Your task to perform on an android device: turn off location history Image 0: 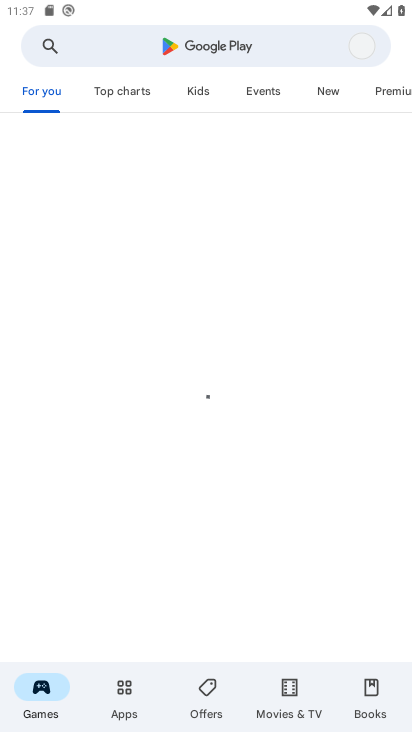
Step 0: press home button
Your task to perform on an android device: turn off location history Image 1: 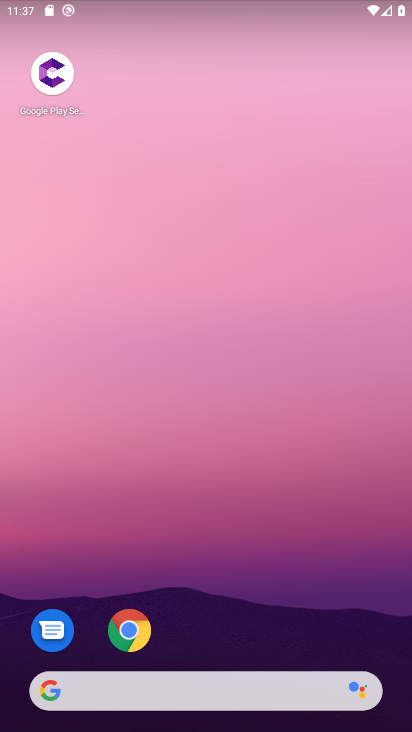
Step 1: drag from (202, 641) to (201, 66)
Your task to perform on an android device: turn off location history Image 2: 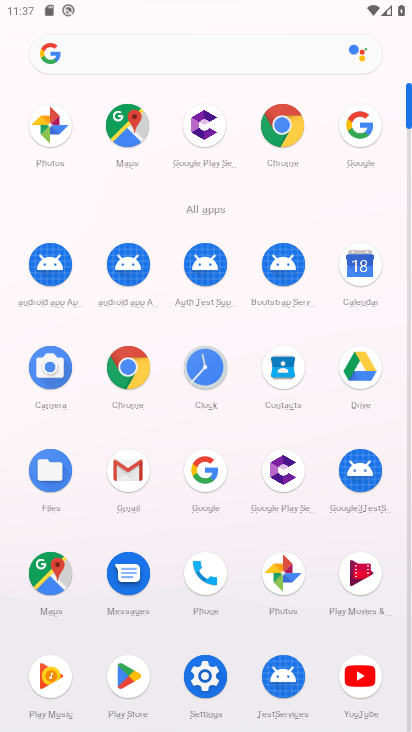
Step 2: click (202, 671)
Your task to perform on an android device: turn off location history Image 3: 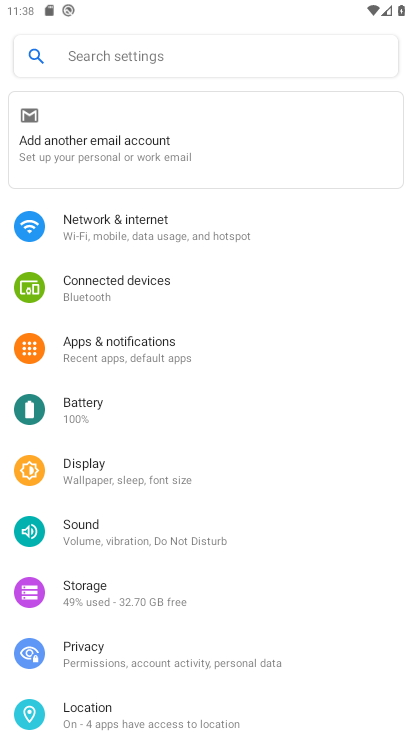
Step 3: click (99, 705)
Your task to perform on an android device: turn off location history Image 4: 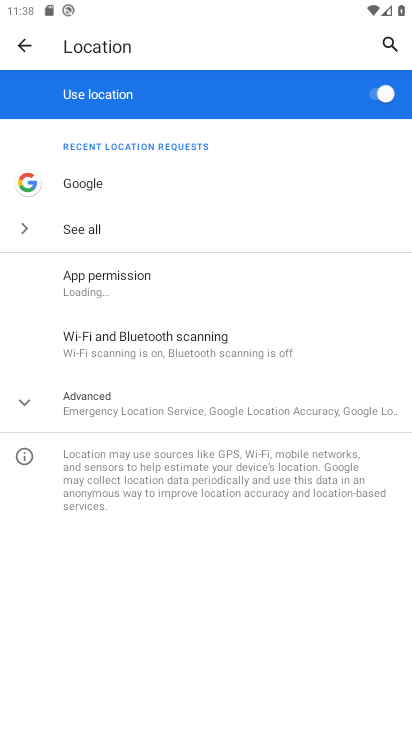
Step 4: click (126, 408)
Your task to perform on an android device: turn off location history Image 5: 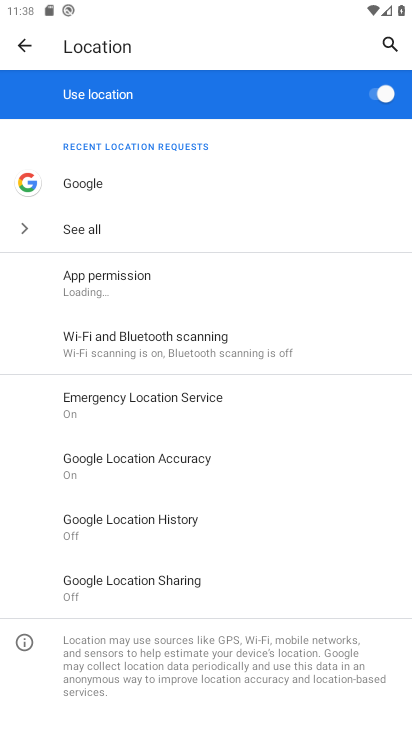
Step 5: click (151, 523)
Your task to perform on an android device: turn off location history Image 6: 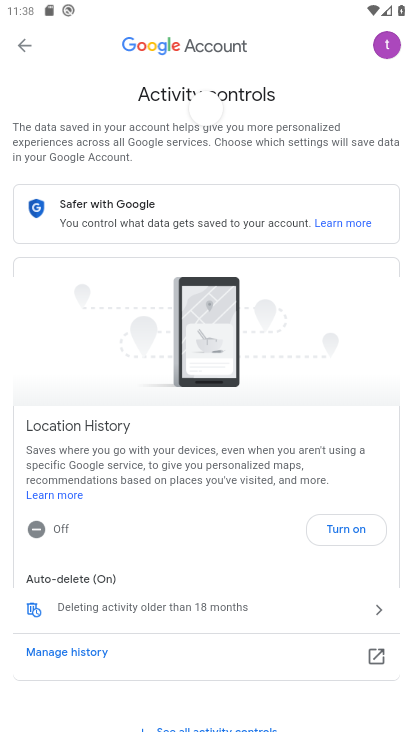
Step 6: task complete